Your task to perform on an android device: Open CNN.com Image 0: 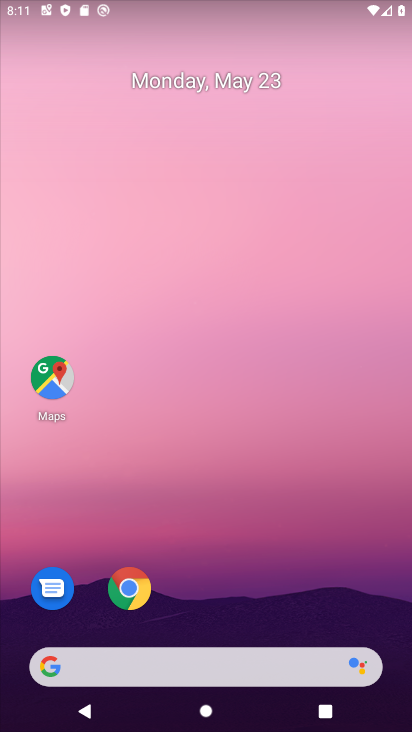
Step 0: click (130, 596)
Your task to perform on an android device: Open CNN.com Image 1: 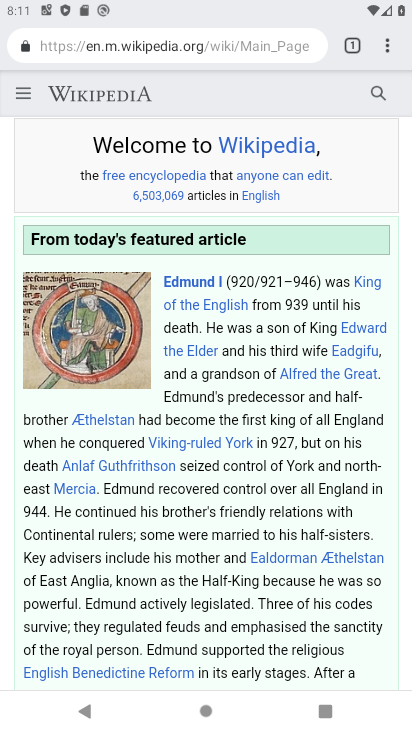
Step 1: click (305, 44)
Your task to perform on an android device: Open CNN.com Image 2: 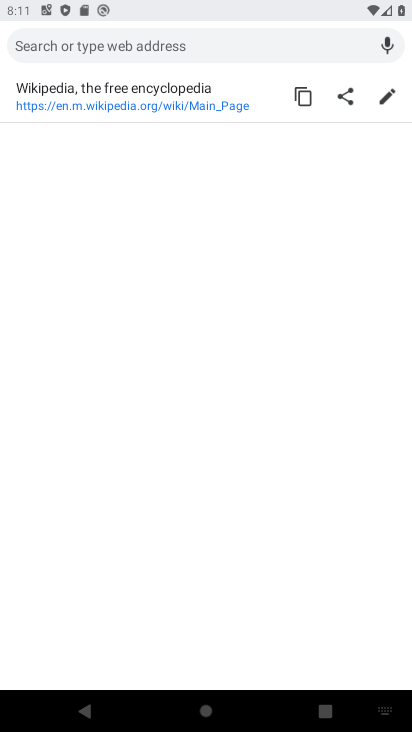
Step 2: type "CNN.com"
Your task to perform on an android device: Open CNN.com Image 3: 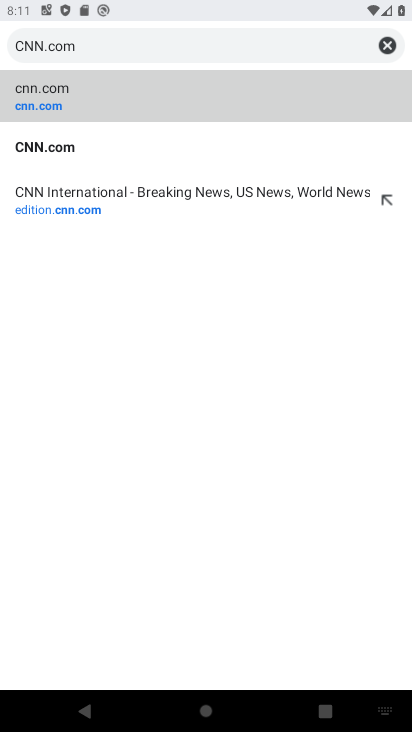
Step 3: click (35, 145)
Your task to perform on an android device: Open CNN.com Image 4: 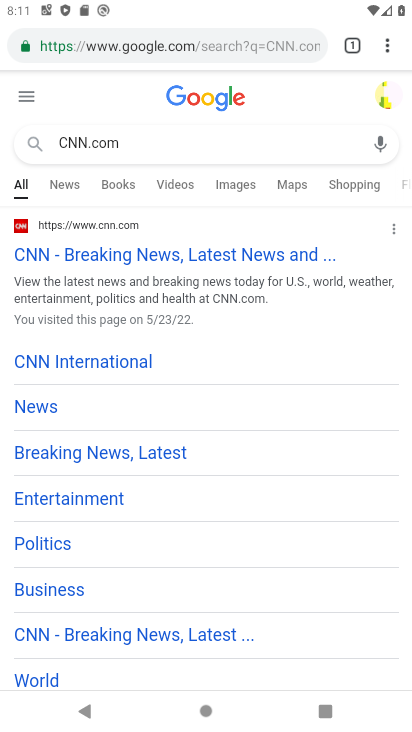
Step 4: task complete